Your task to perform on an android device: Show me popular videos on Youtube Image 0: 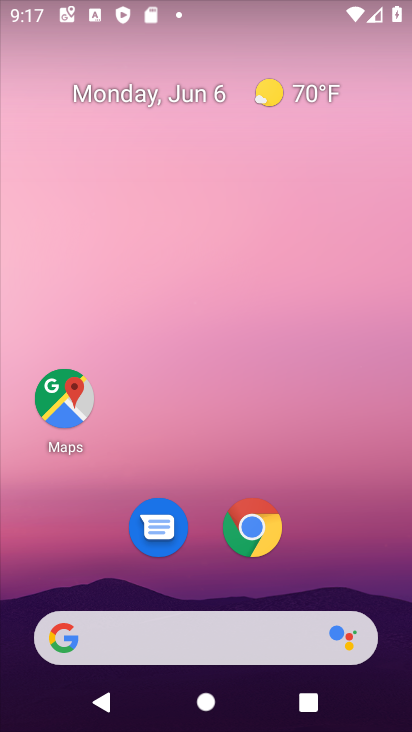
Step 0: drag from (200, 608) to (200, 138)
Your task to perform on an android device: Show me popular videos on Youtube Image 1: 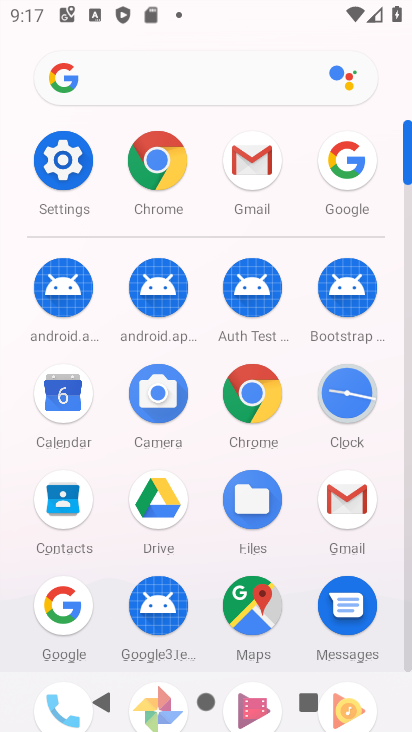
Step 1: drag from (217, 512) to (253, 220)
Your task to perform on an android device: Show me popular videos on Youtube Image 2: 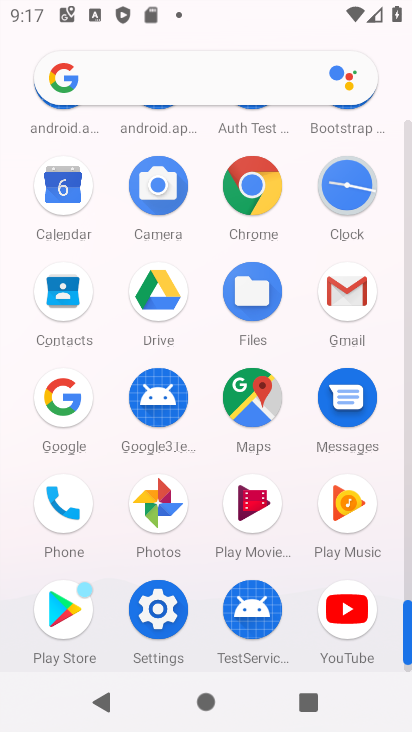
Step 2: click (349, 622)
Your task to perform on an android device: Show me popular videos on Youtube Image 3: 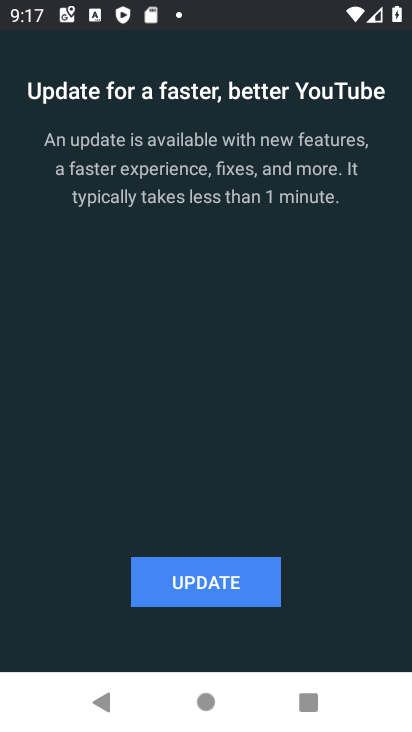
Step 3: click (229, 572)
Your task to perform on an android device: Show me popular videos on Youtube Image 4: 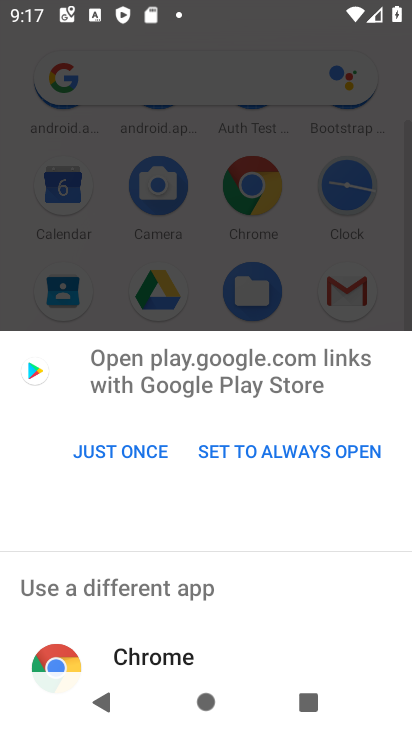
Step 4: click (120, 424)
Your task to perform on an android device: Show me popular videos on Youtube Image 5: 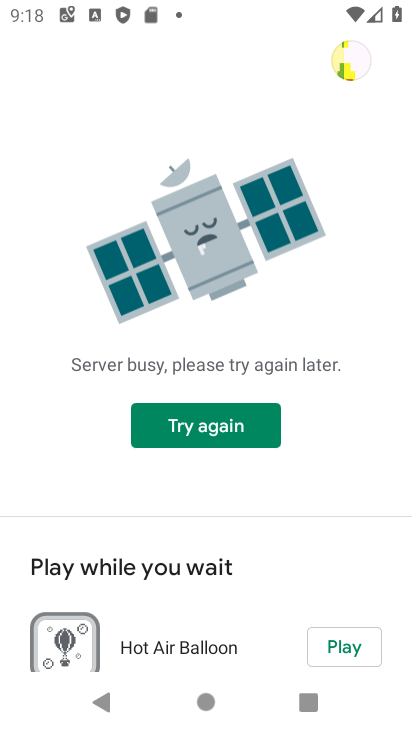
Step 5: click (219, 420)
Your task to perform on an android device: Show me popular videos on Youtube Image 6: 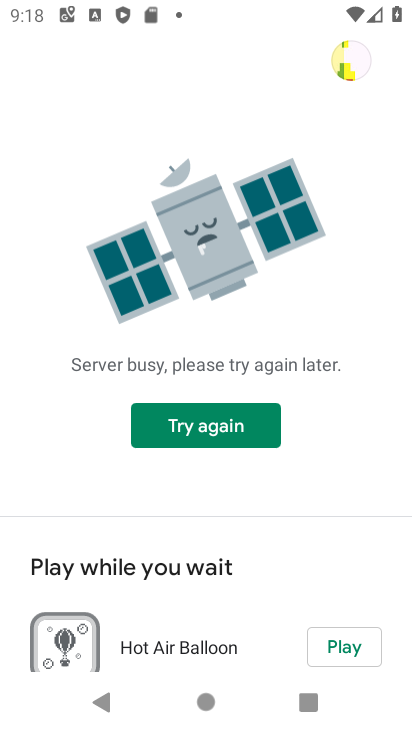
Step 6: task complete